Your task to perform on an android device: Turn off the flashlight Image 0: 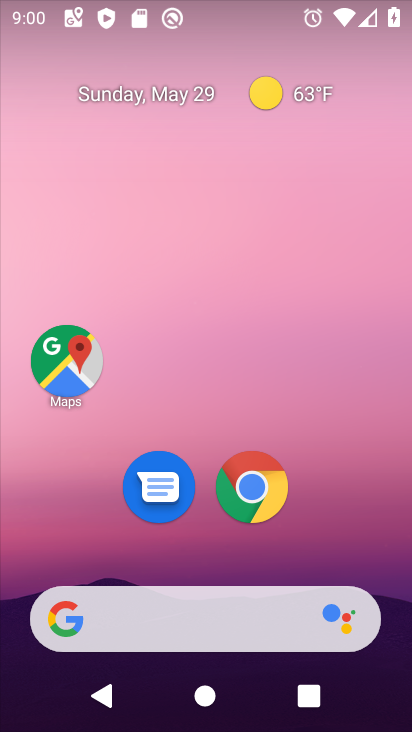
Step 0: drag from (201, 638) to (253, 200)
Your task to perform on an android device: Turn off the flashlight Image 1: 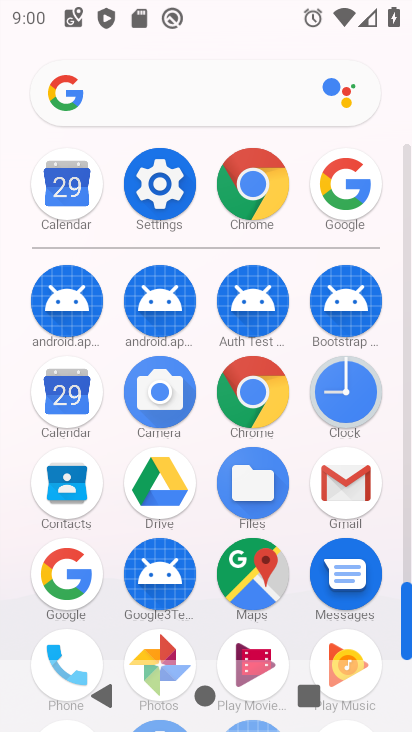
Step 1: task complete